Your task to perform on an android device: change the clock display to show seconds Image 0: 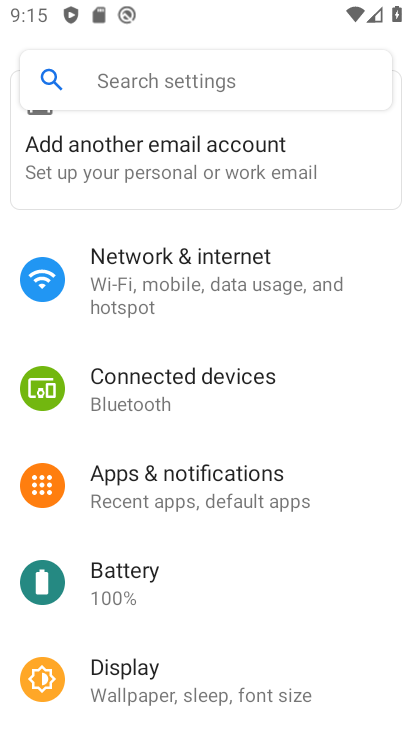
Step 0: press home button
Your task to perform on an android device: change the clock display to show seconds Image 1: 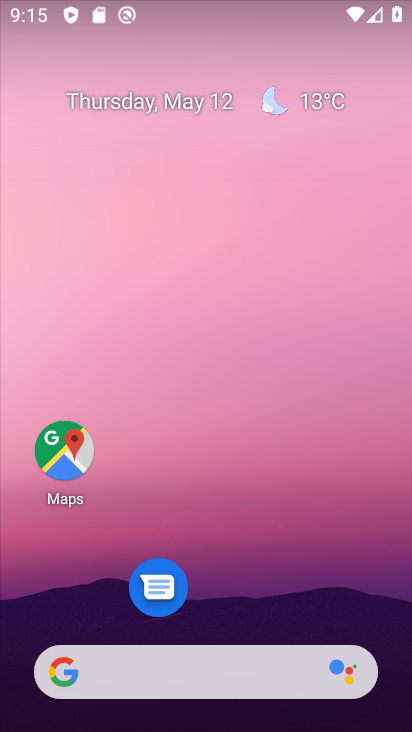
Step 1: drag from (223, 626) to (239, 37)
Your task to perform on an android device: change the clock display to show seconds Image 2: 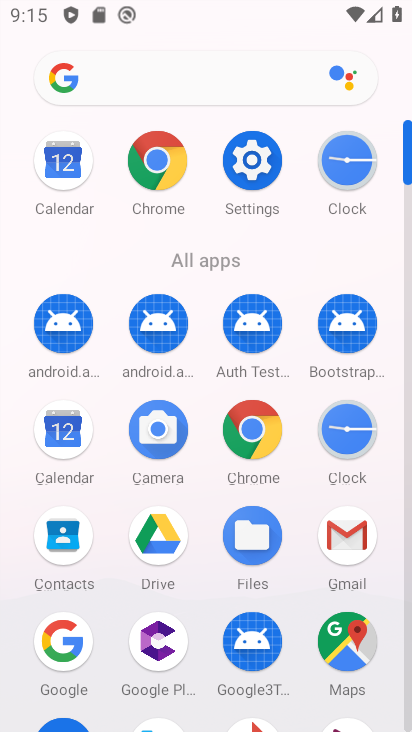
Step 2: click (359, 440)
Your task to perform on an android device: change the clock display to show seconds Image 3: 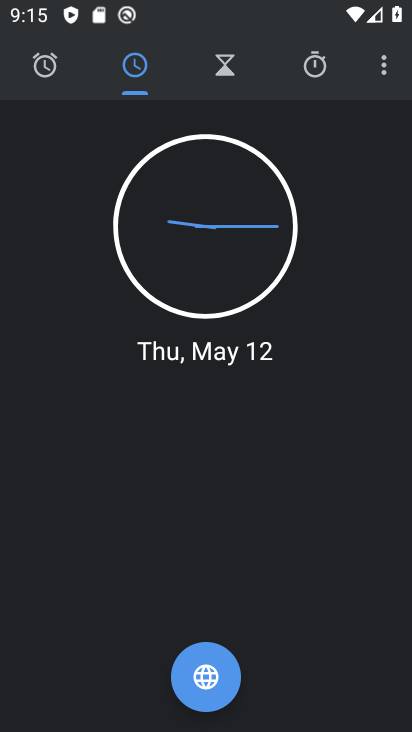
Step 3: click (387, 67)
Your task to perform on an android device: change the clock display to show seconds Image 4: 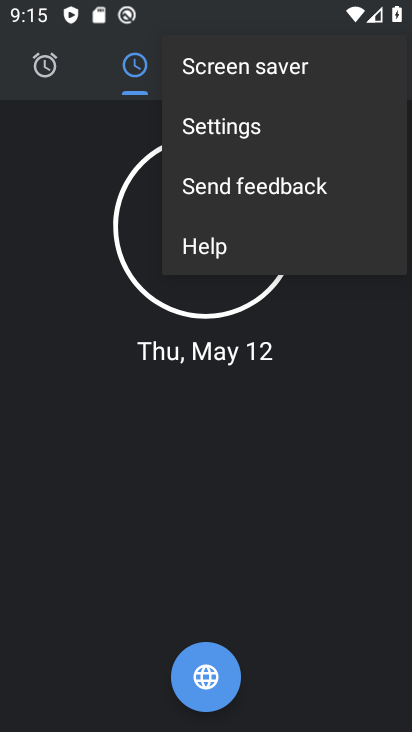
Step 4: click (229, 122)
Your task to perform on an android device: change the clock display to show seconds Image 5: 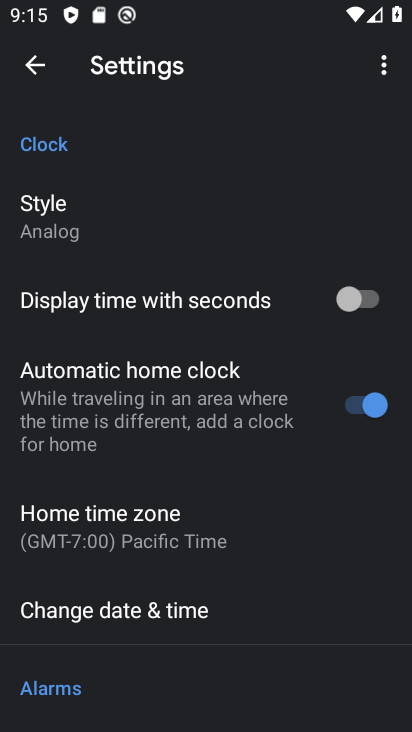
Step 5: click (313, 291)
Your task to perform on an android device: change the clock display to show seconds Image 6: 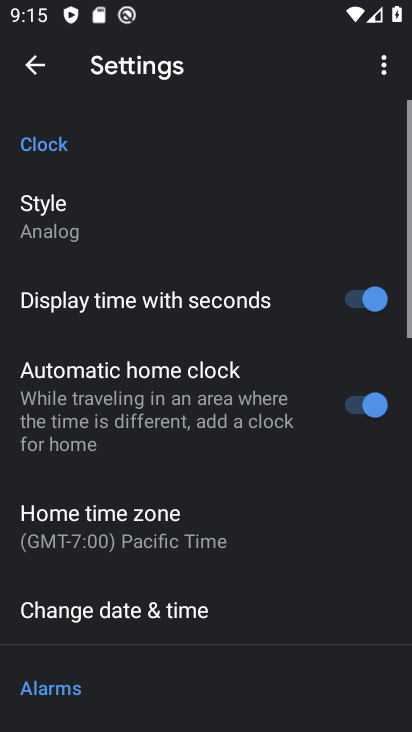
Step 6: task complete